Your task to perform on an android device: turn on showing notifications on the lock screen Image 0: 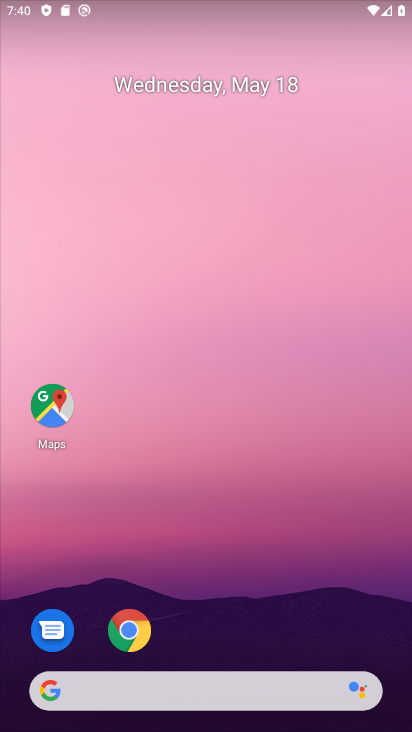
Step 0: drag from (247, 565) to (184, 34)
Your task to perform on an android device: turn on showing notifications on the lock screen Image 1: 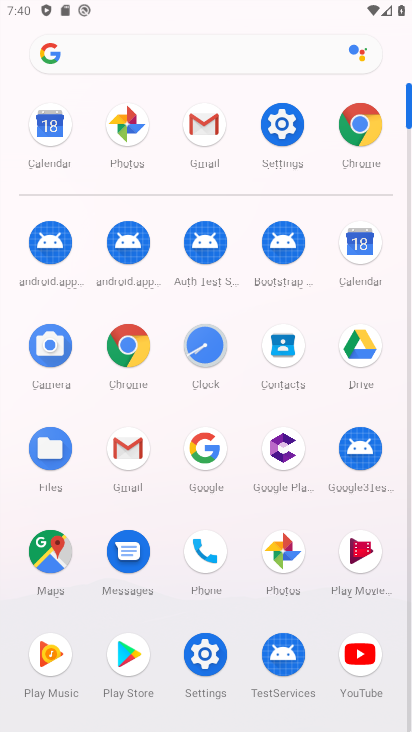
Step 1: click (283, 120)
Your task to perform on an android device: turn on showing notifications on the lock screen Image 2: 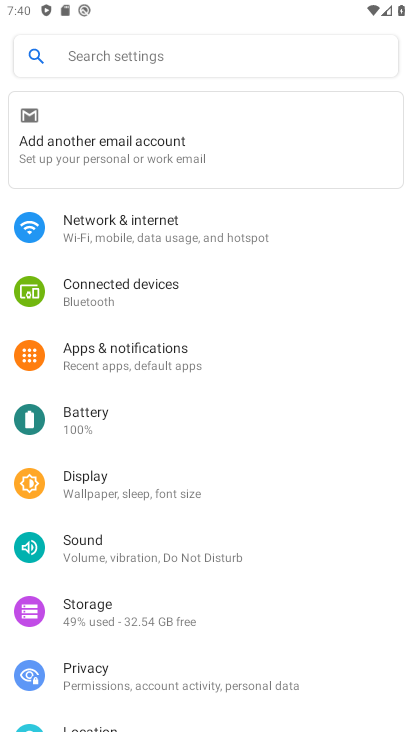
Step 2: click (143, 347)
Your task to perform on an android device: turn on showing notifications on the lock screen Image 3: 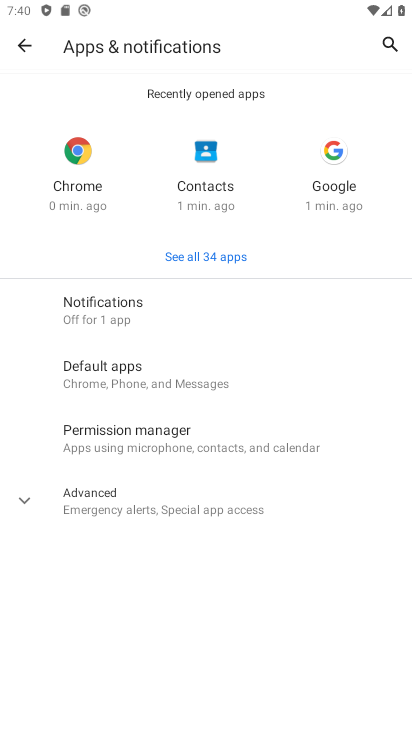
Step 3: click (101, 300)
Your task to perform on an android device: turn on showing notifications on the lock screen Image 4: 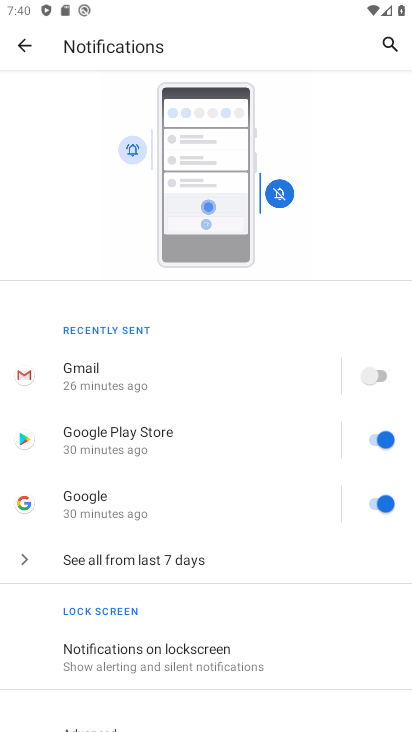
Step 4: drag from (290, 587) to (267, 327)
Your task to perform on an android device: turn on showing notifications on the lock screen Image 5: 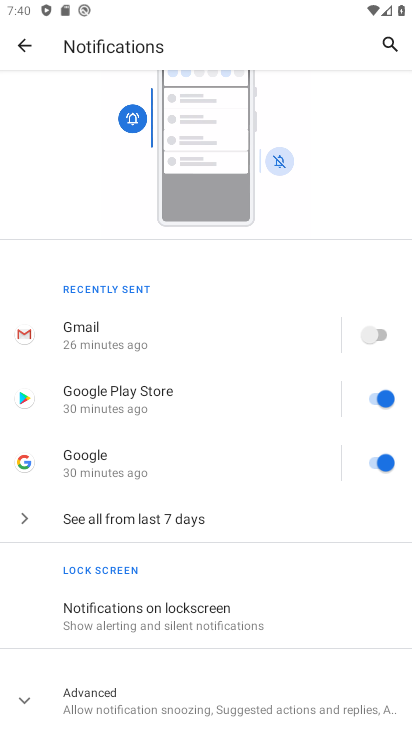
Step 5: click (191, 604)
Your task to perform on an android device: turn on showing notifications on the lock screen Image 6: 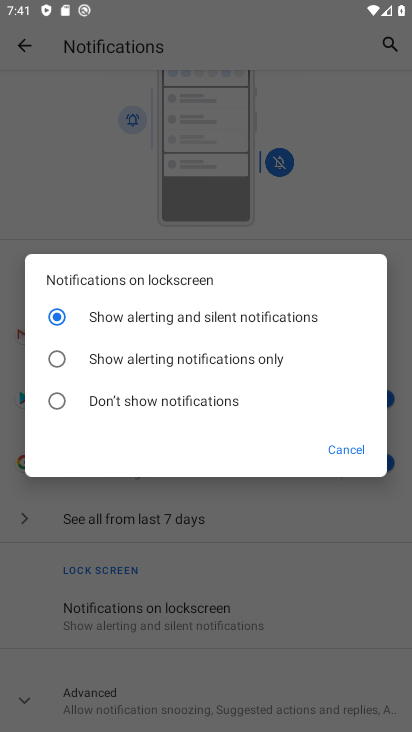
Step 6: task complete